Your task to perform on an android device: set the timer Image 0: 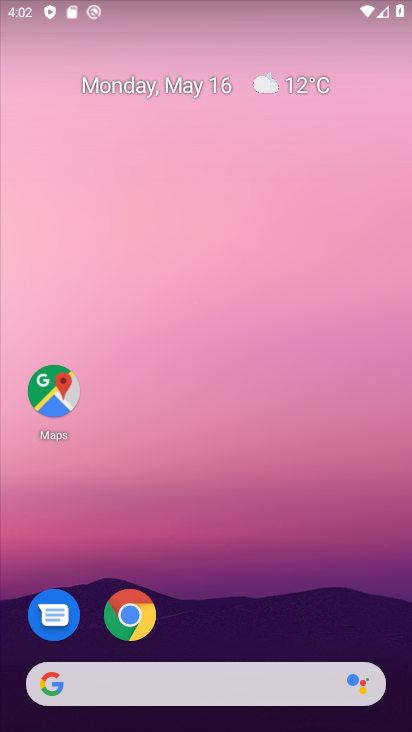
Step 0: drag from (236, 652) to (139, 106)
Your task to perform on an android device: set the timer Image 1: 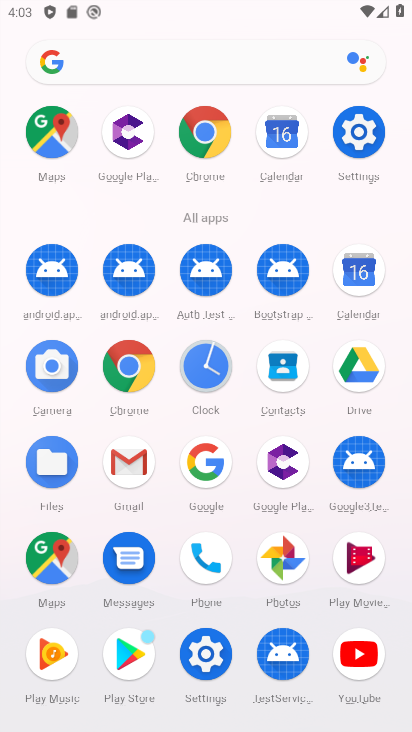
Step 1: click (204, 365)
Your task to perform on an android device: set the timer Image 2: 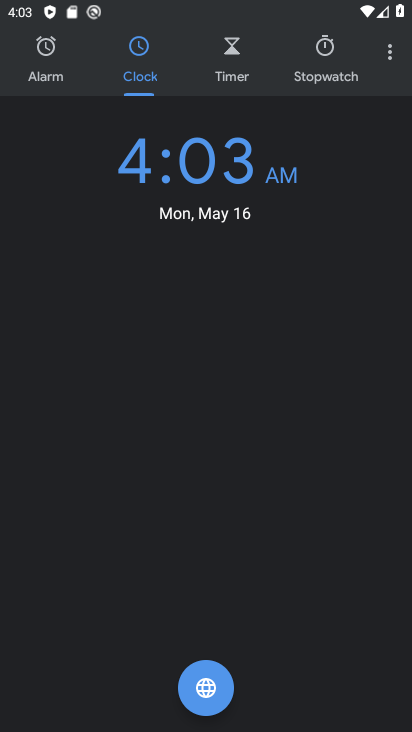
Step 2: click (235, 60)
Your task to perform on an android device: set the timer Image 3: 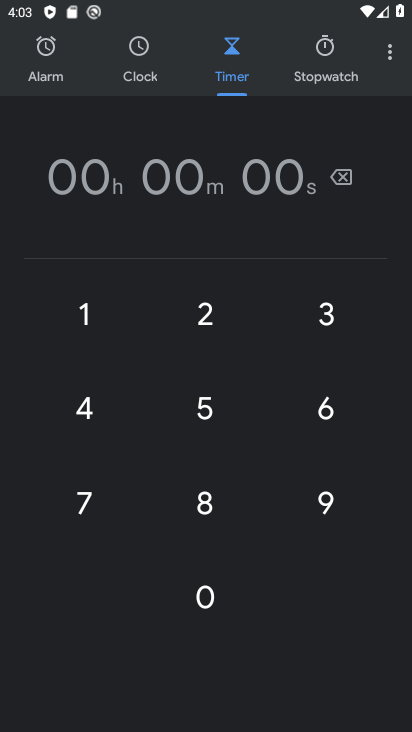
Step 3: click (217, 301)
Your task to perform on an android device: set the timer Image 4: 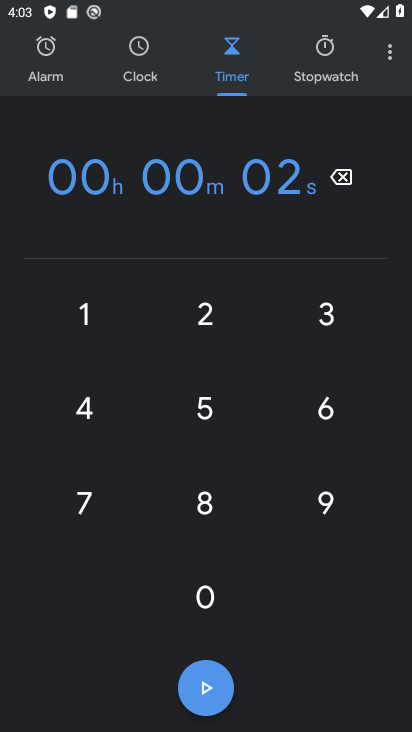
Step 4: click (204, 377)
Your task to perform on an android device: set the timer Image 5: 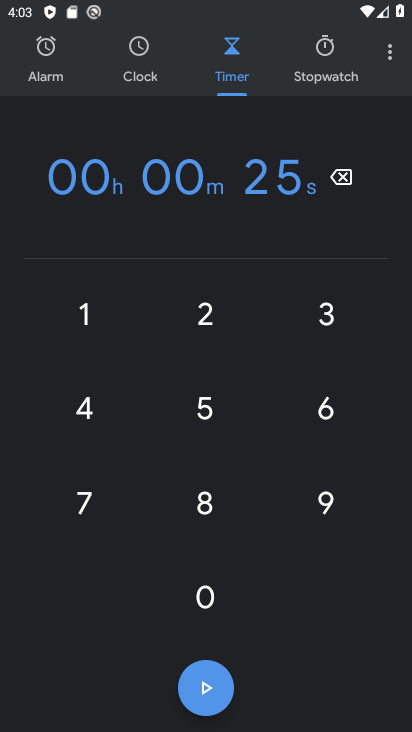
Step 5: click (212, 680)
Your task to perform on an android device: set the timer Image 6: 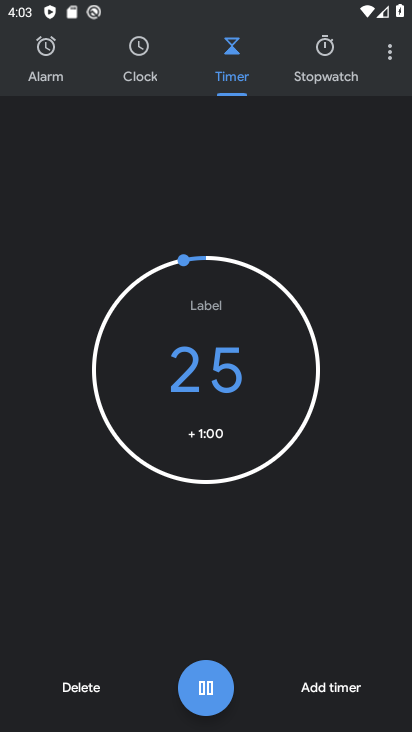
Step 6: task complete